Your task to perform on an android device: Open Maps and search for coffee Image 0: 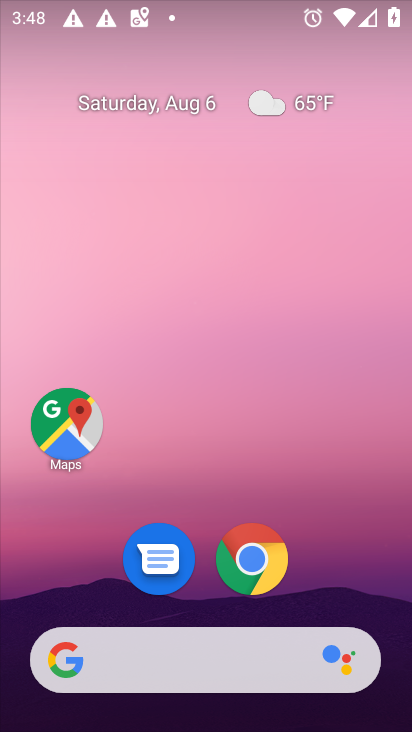
Step 0: click (73, 436)
Your task to perform on an android device: Open Maps and search for coffee Image 1: 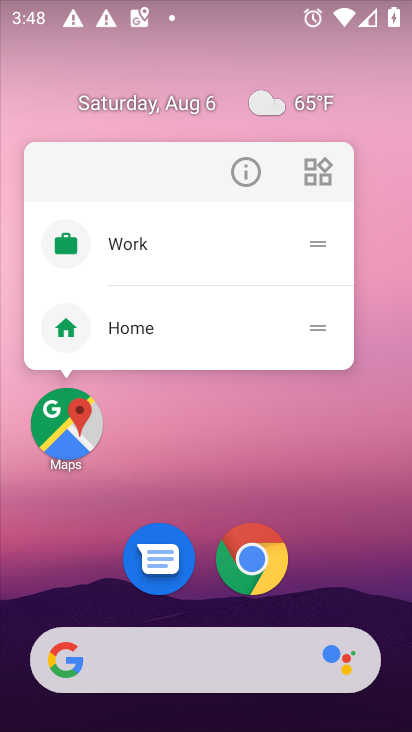
Step 1: click (76, 424)
Your task to perform on an android device: Open Maps and search for coffee Image 2: 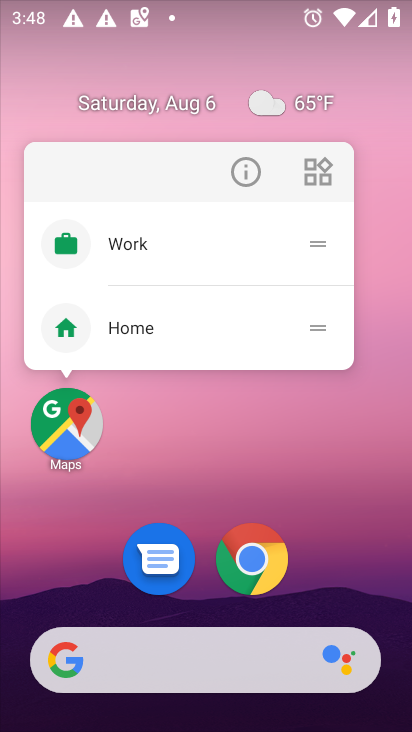
Step 2: click (78, 429)
Your task to perform on an android device: Open Maps and search for coffee Image 3: 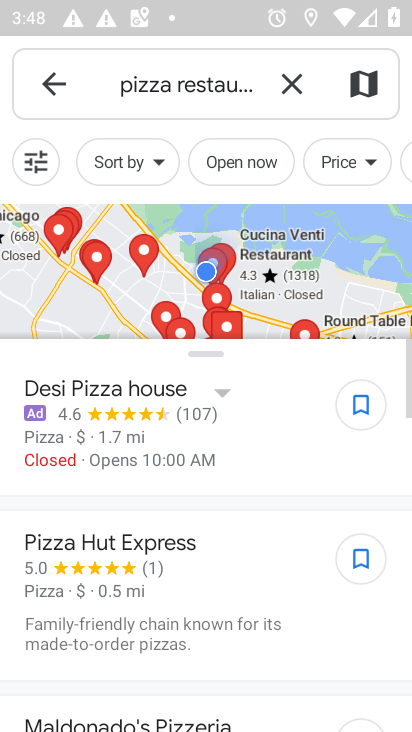
Step 3: click (288, 80)
Your task to perform on an android device: Open Maps and search for coffee Image 4: 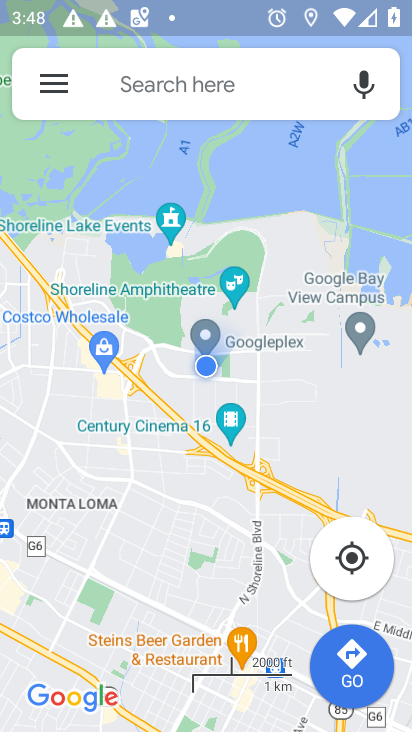
Step 4: click (241, 71)
Your task to perform on an android device: Open Maps and search for coffee Image 5: 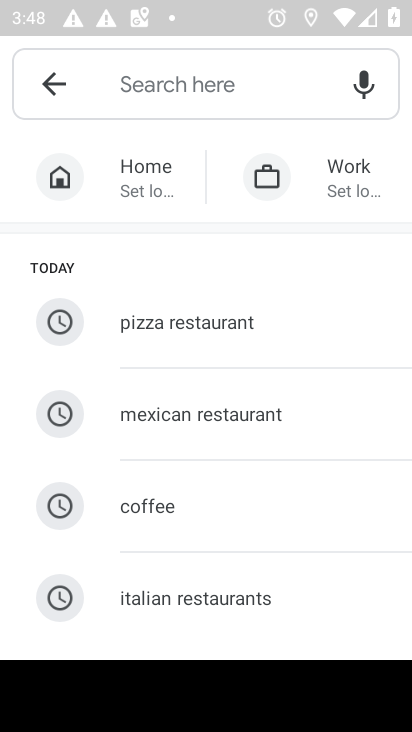
Step 5: click (144, 498)
Your task to perform on an android device: Open Maps and search for coffee Image 6: 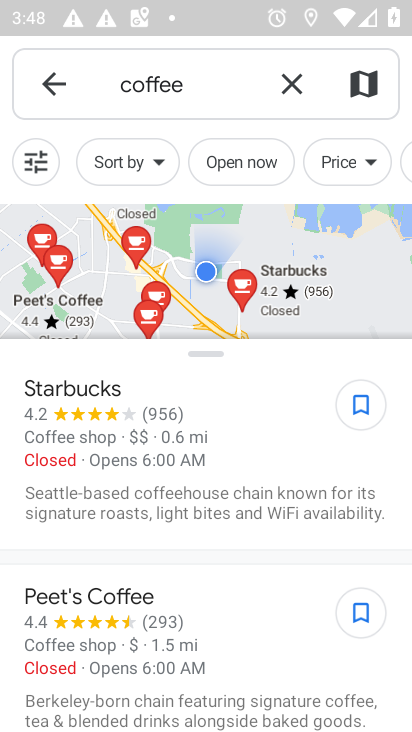
Step 6: task complete